Your task to perform on an android device: open device folders in google photos Image 0: 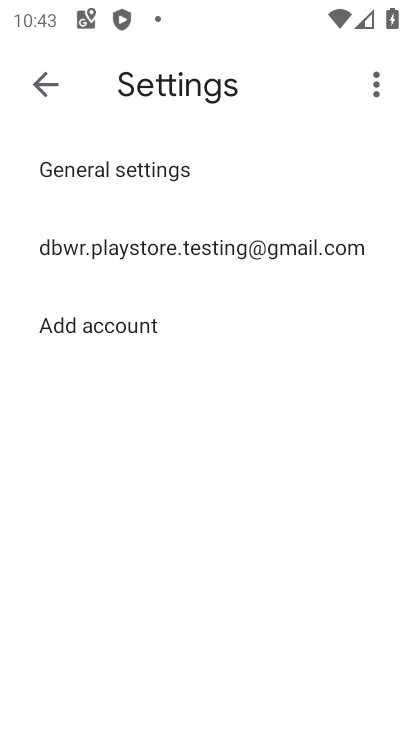
Step 0: press home button
Your task to perform on an android device: open device folders in google photos Image 1: 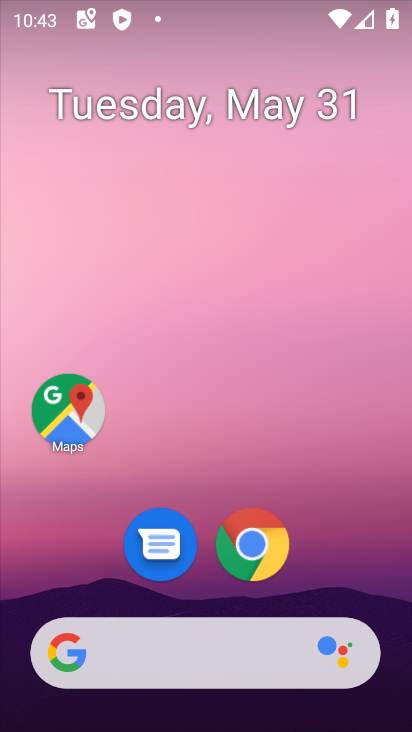
Step 1: drag from (219, 580) to (201, 192)
Your task to perform on an android device: open device folders in google photos Image 2: 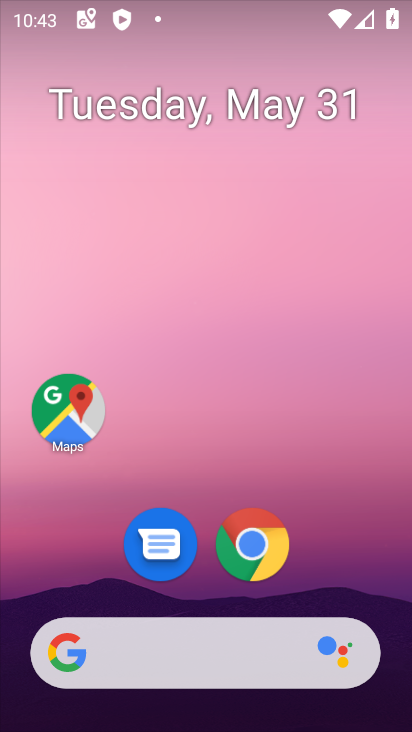
Step 2: drag from (207, 594) to (185, 190)
Your task to perform on an android device: open device folders in google photos Image 3: 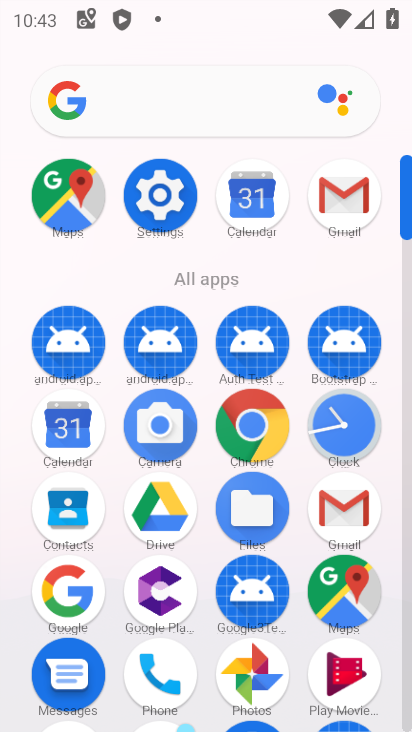
Step 3: click (238, 647)
Your task to perform on an android device: open device folders in google photos Image 4: 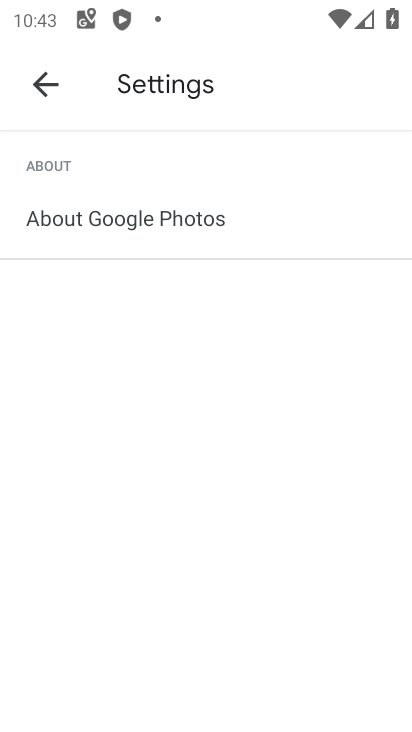
Step 4: click (47, 88)
Your task to perform on an android device: open device folders in google photos Image 5: 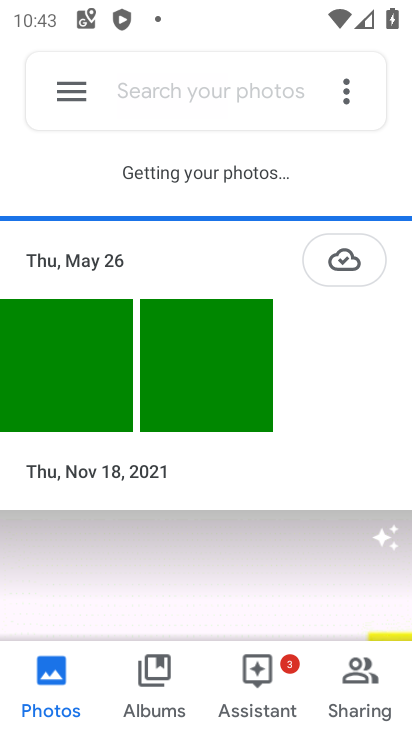
Step 5: click (59, 94)
Your task to perform on an android device: open device folders in google photos Image 6: 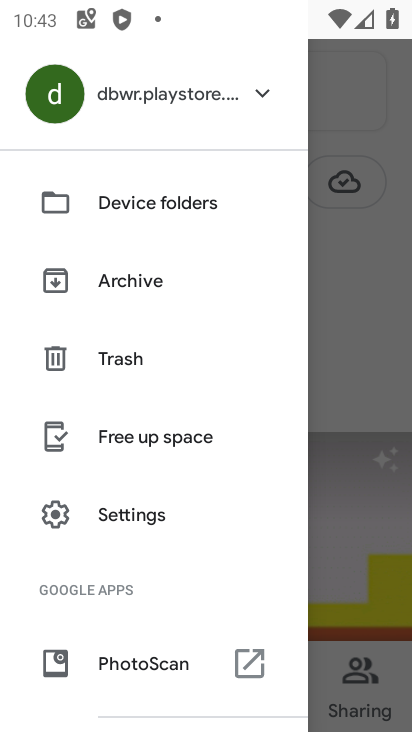
Step 6: click (124, 191)
Your task to perform on an android device: open device folders in google photos Image 7: 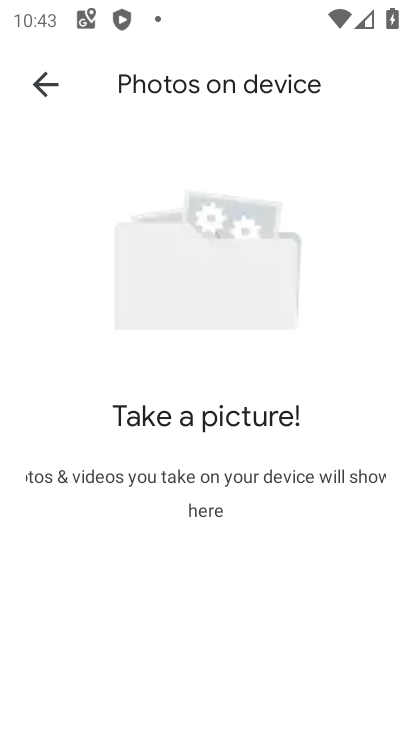
Step 7: task complete